Your task to perform on an android device: Open wifi settings Image 0: 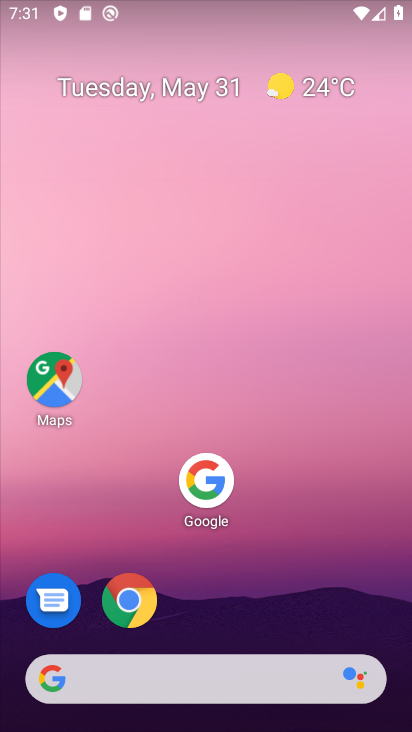
Step 0: drag from (233, 680) to (355, 30)
Your task to perform on an android device: Open wifi settings Image 1: 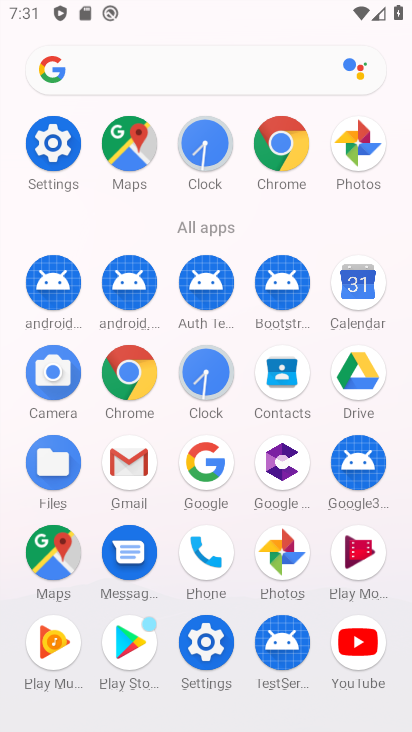
Step 1: click (63, 138)
Your task to perform on an android device: Open wifi settings Image 2: 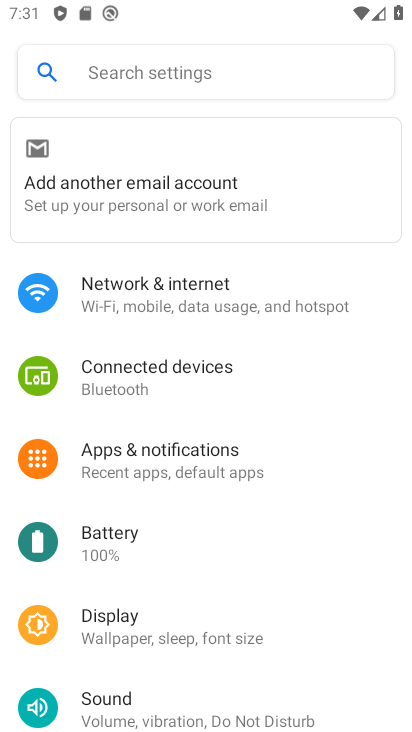
Step 2: click (167, 294)
Your task to perform on an android device: Open wifi settings Image 3: 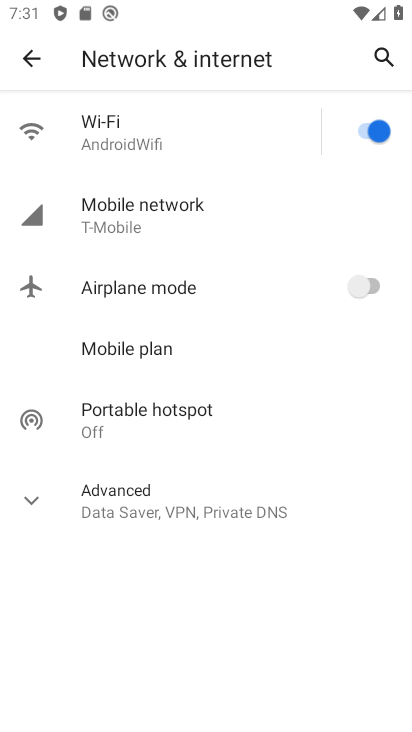
Step 3: click (110, 126)
Your task to perform on an android device: Open wifi settings Image 4: 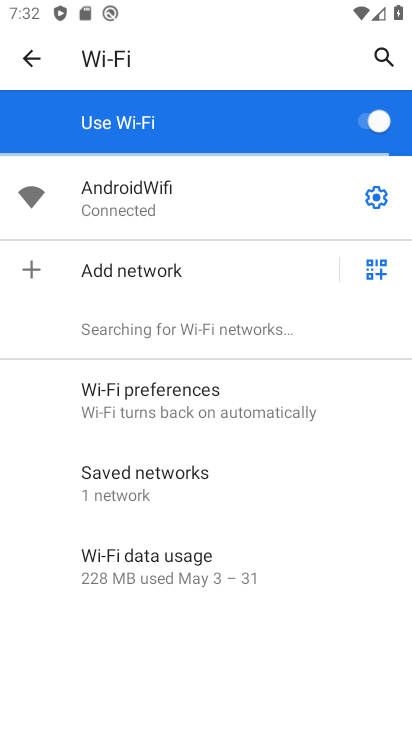
Step 4: task complete